Your task to perform on an android device: Clear all items from cart on bestbuy. Add "razer thresher" to the cart on bestbuy, then select checkout. Image 0: 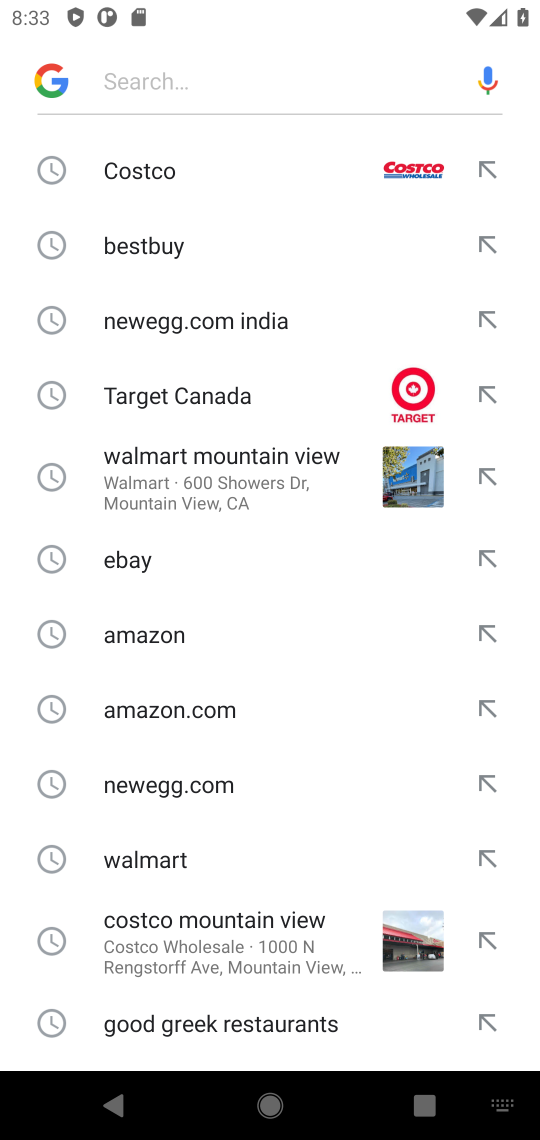
Step 0: click (208, 259)
Your task to perform on an android device: Clear all items from cart on bestbuy. Add "razer thresher" to the cart on bestbuy, then select checkout. Image 1: 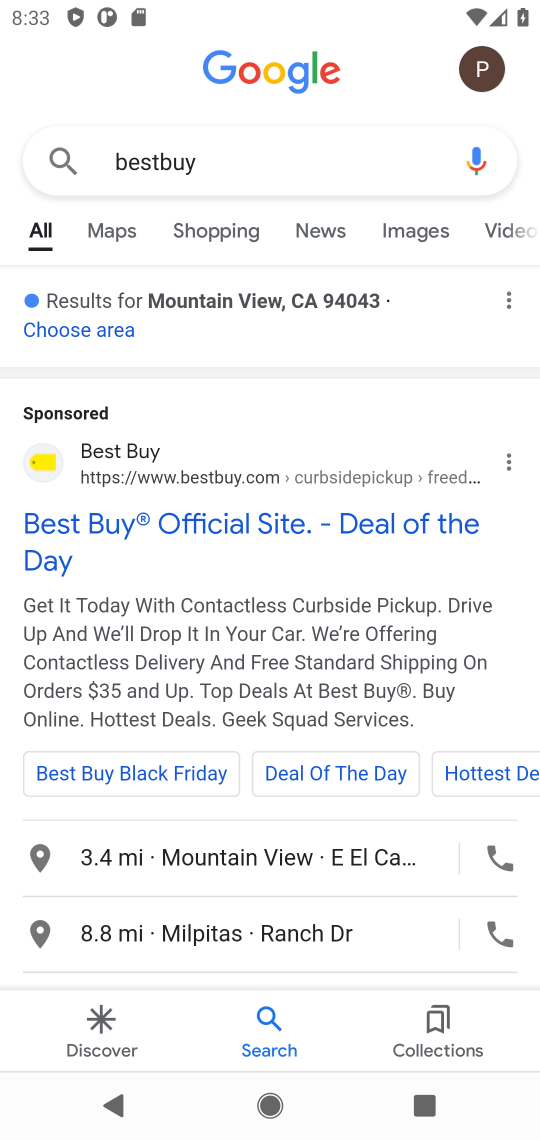
Step 1: click (118, 512)
Your task to perform on an android device: Clear all items from cart on bestbuy. Add "razer thresher" to the cart on bestbuy, then select checkout. Image 2: 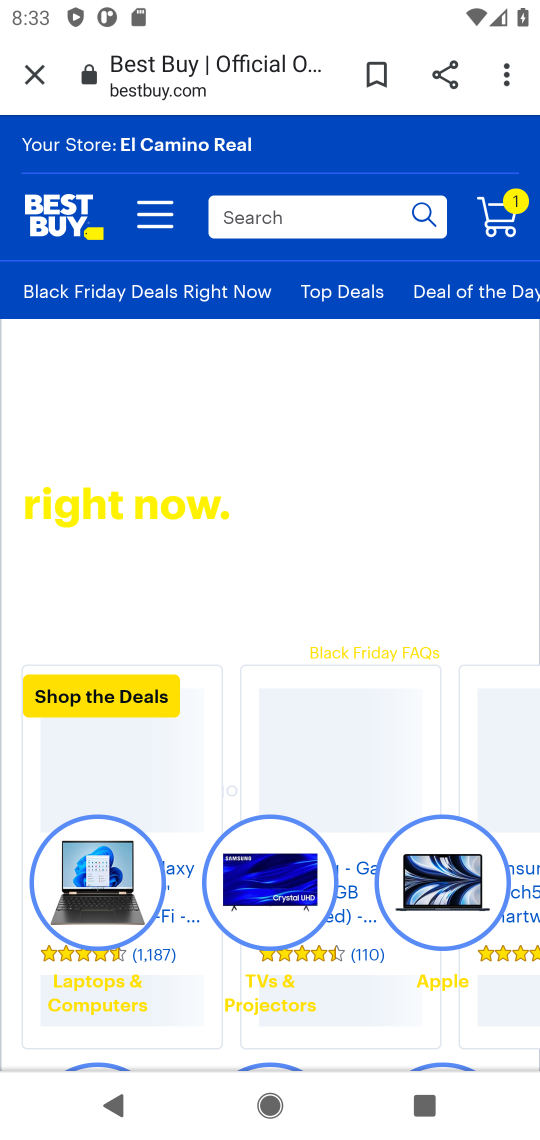
Step 2: click (328, 232)
Your task to perform on an android device: Clear all items from cart on bestbuy. Add "razer thresher" to the cart on bestbuy, then select checkout. Image 3: 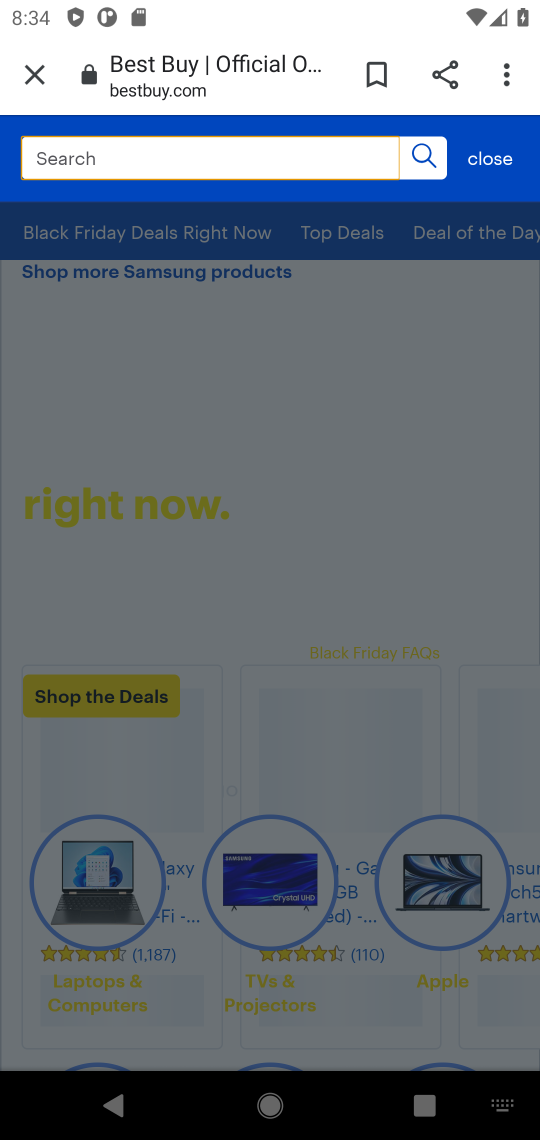
Step 3: type "razer threshser"
Your task to perform on an android device: Clear all items from cart on bestbuy. Add "razer thresher" to the cart on bestbuy, then select checkout. Image 4: 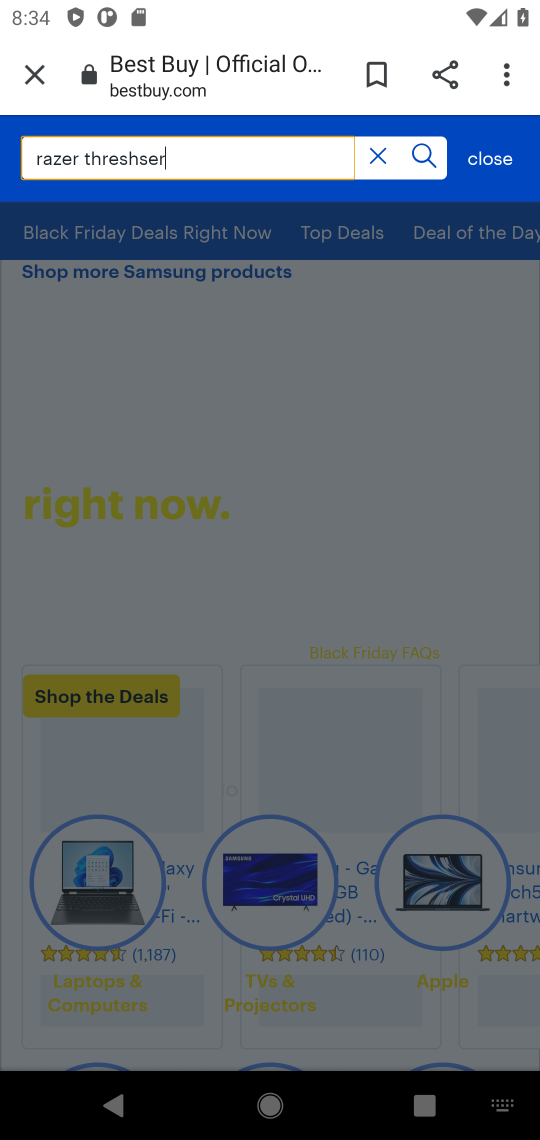
Step 4: click (432, 158)
Your task to perform on an android device: Clear all items from cart on bestbuy. Add "razer thresher" to the cart on bestbuy, then select checkout. Image 5: 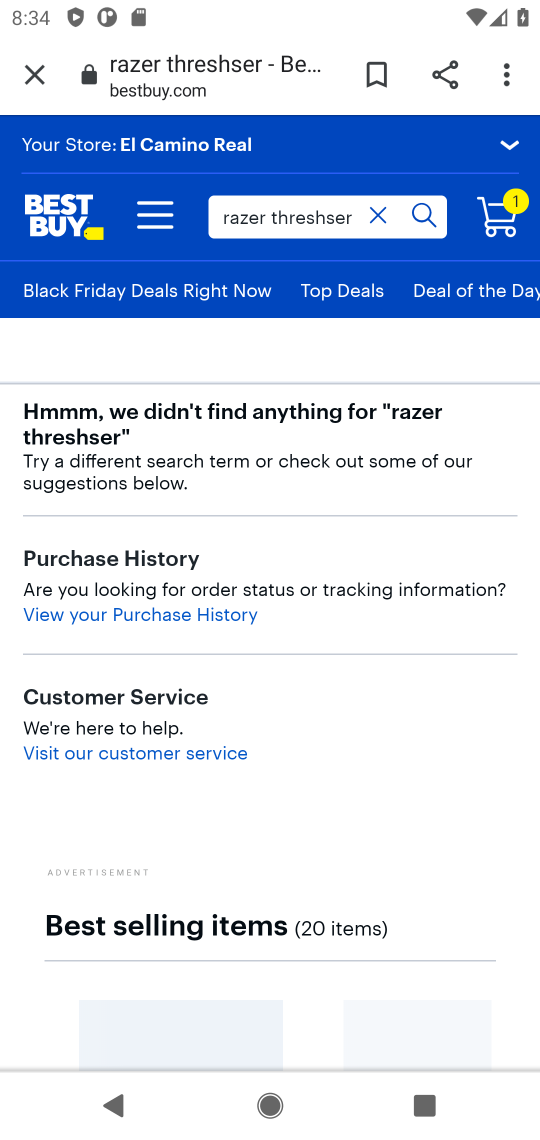
Step 5: task complete